Your task to perform on an android device: toggle sleep mode Image 0: 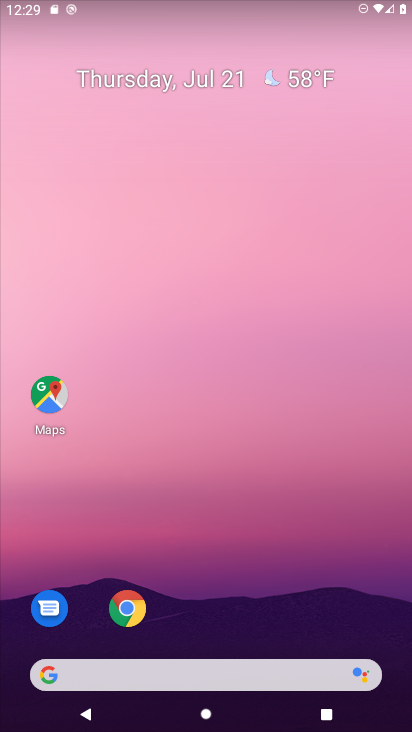
Step 0: press home button
Your task to perform on an android device: toggle sleep mode Image 1: 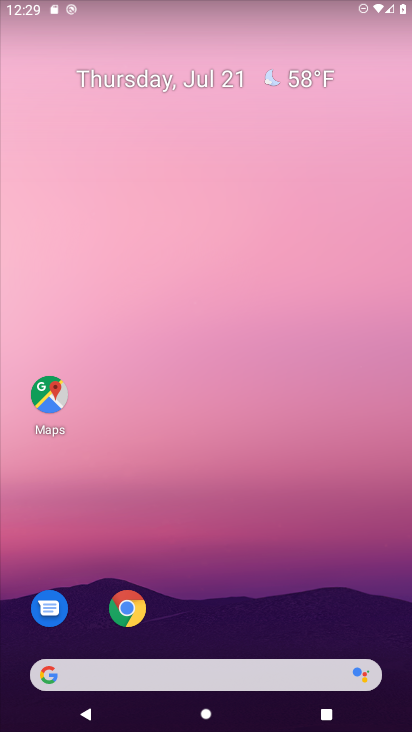
Step 1: drag from (211, 633) to (163, 87)
Your task to perform on an android device: toggle sleep mode Image 2: 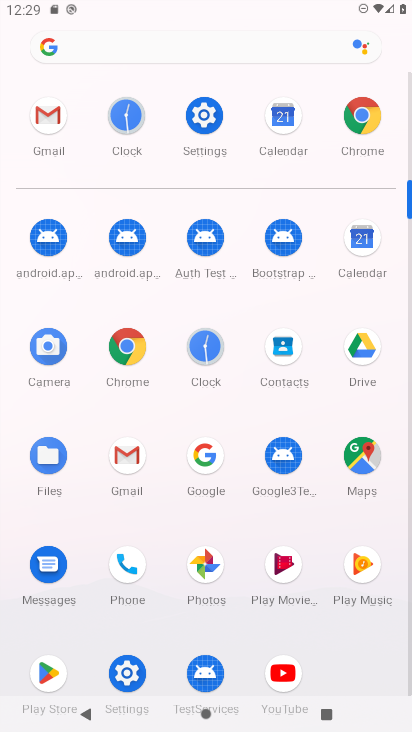
Step 2: click (201, 118)
Your task to perform on an android device: toggle sleep mode Image 3: 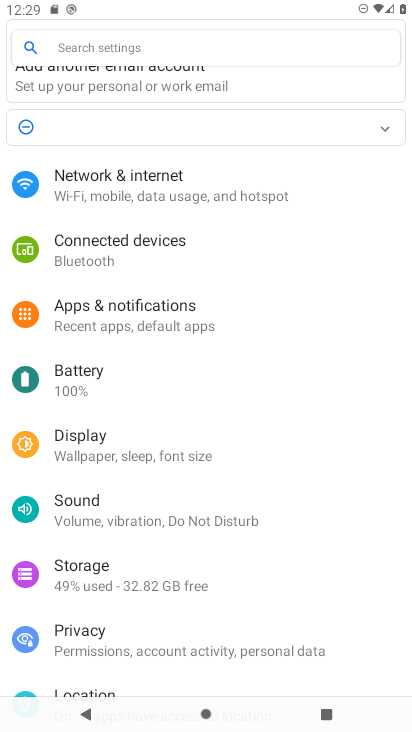
Step 3: click (78, 442)
Your task to perform on an android device: toggle sleep mode Image 4: 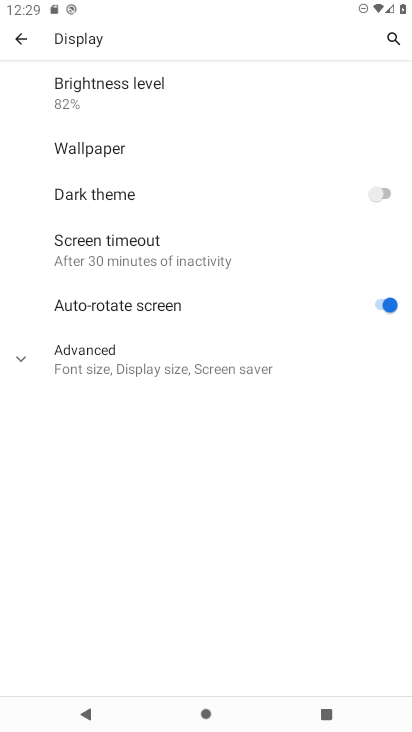
Step 4: task complete